Your task to perform on an android device: change timer sound Image 0: 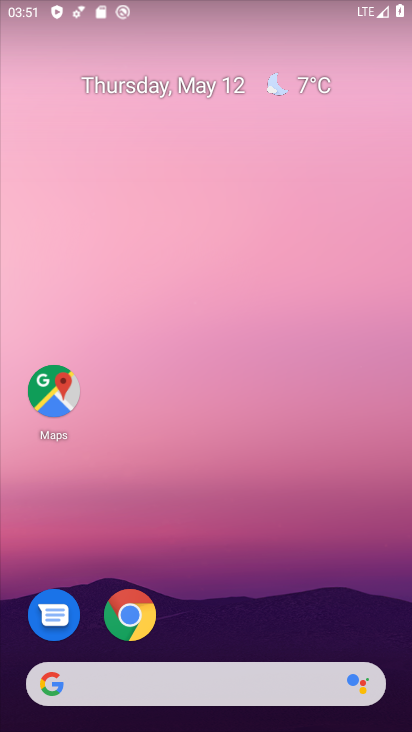
Step 0: drag from (276, 621) to (306, 107)
Your task to perform on an android device: change timer sound Image 1: 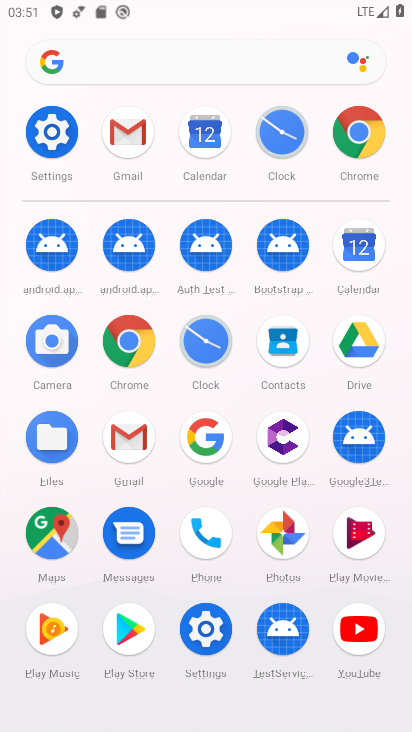
Step 1: click (215, 338)
Your task to perform on an android device: change timer sound Image 2: 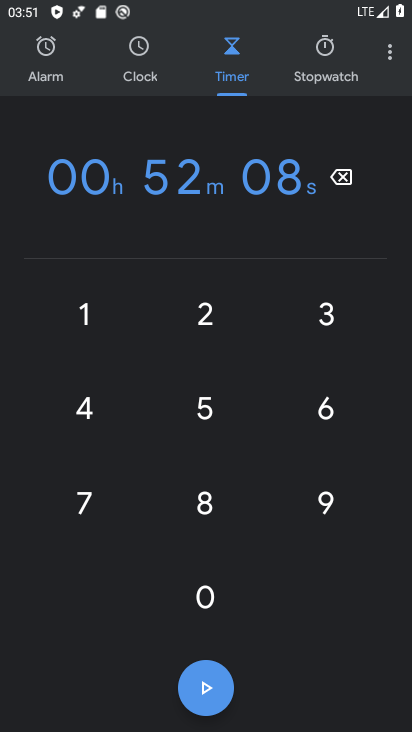
Step 2: click (392, 58)
Your task to perform on an android device: change timer sound Image 3: 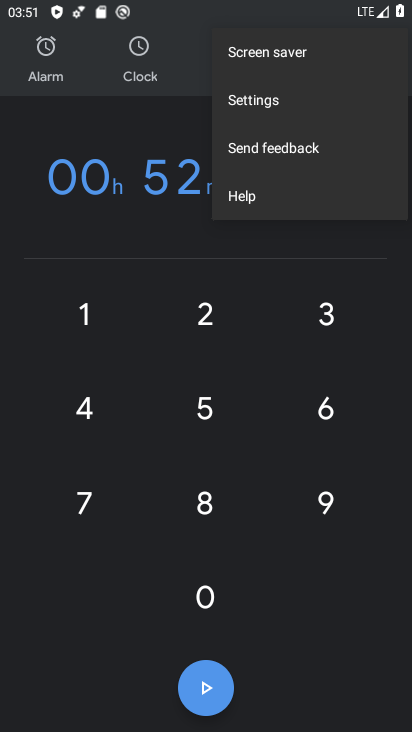
Step 3: click (290, 102)
Your task to perform on an android device: change timer sound Image 4: 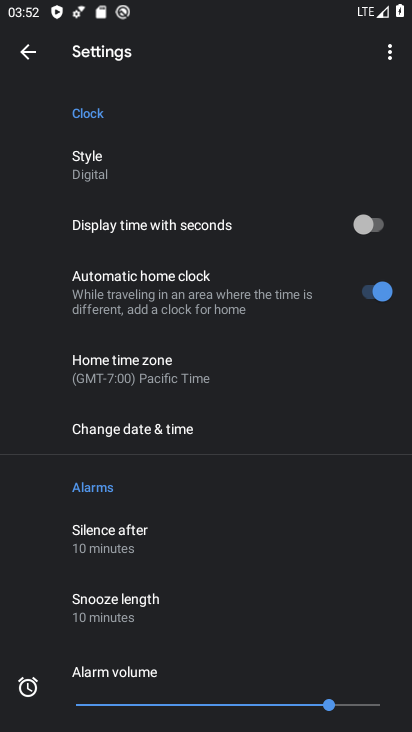
Step 4: drag from (178, 607) to (165, 191)
Your task to perform on an android device: change timer sound Image 5: 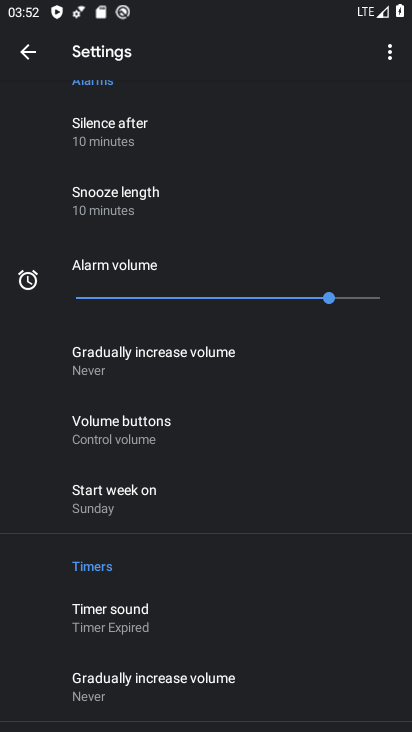
Step 5: click (147, 632)
Your task to perform on an android device: change timer sound Image 6: 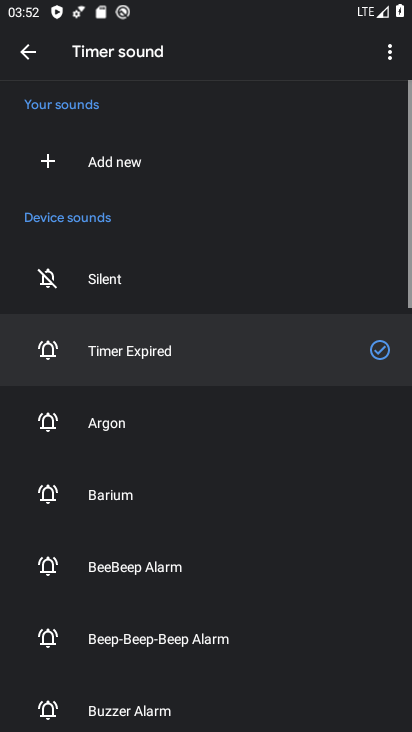
Step 6: click (165, 564)
Your task to perform on an android device: change timer sound Image 7: 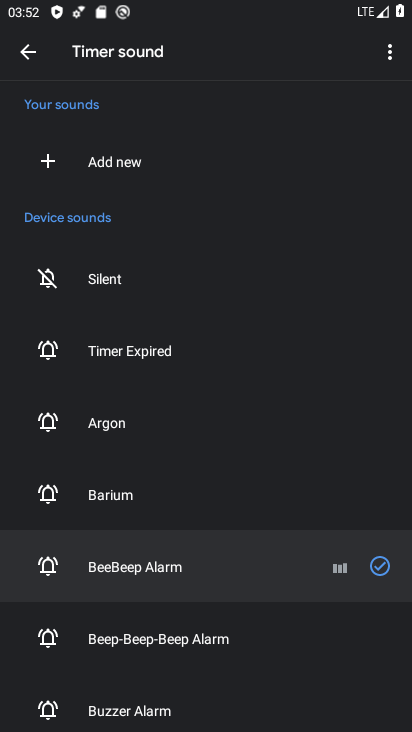
Step 7: task complete